Your task to perform on an android device: turn on location history Image 0: 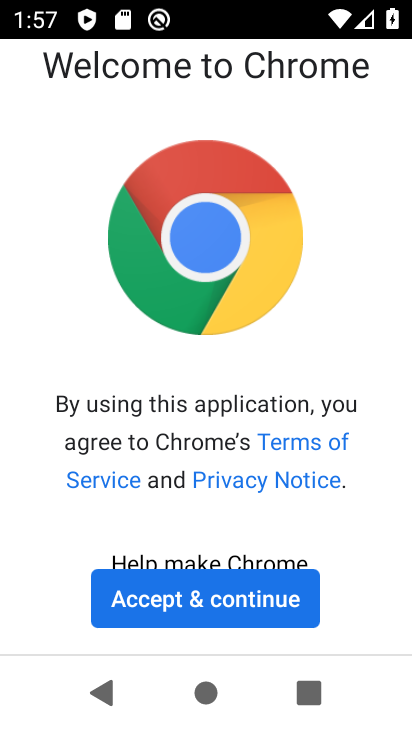
Step 0: press home button
Your task to perform on an android device: turn on location history Image 1: 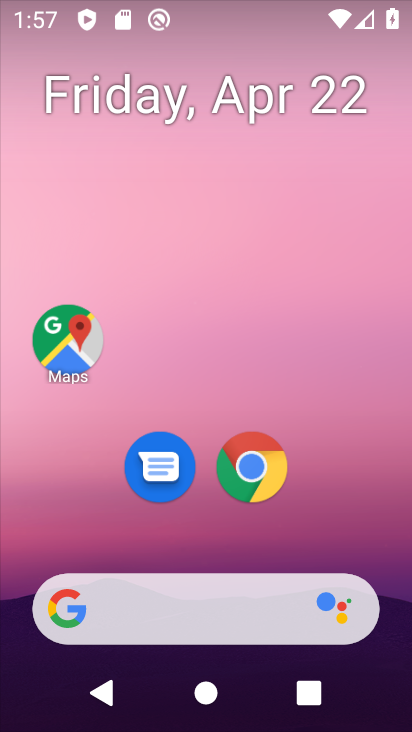
Step 1: drag from (216, 393) to (217, 128)
Your task to perform on an android device: turn on location history Image 2: 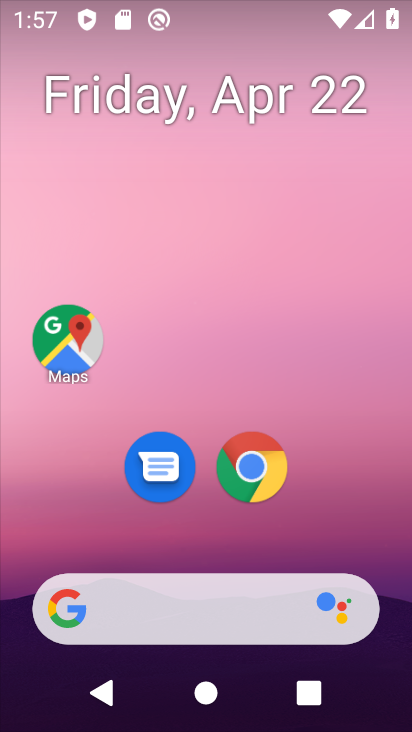
Step 2: drag from (197, 528) to (205, 88)
Your task to perform on an android device: turn on location history Image 3: 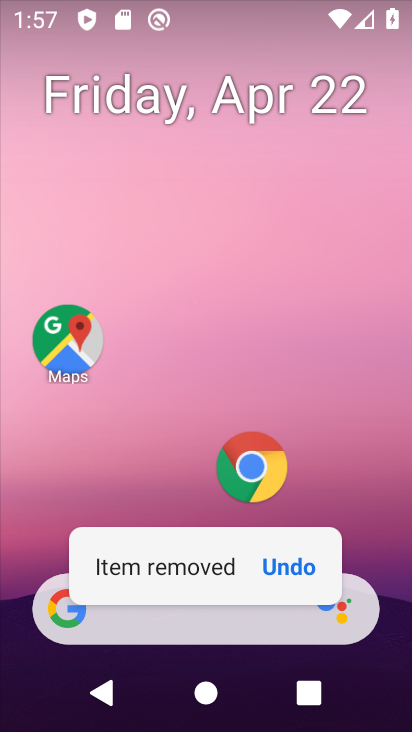
Step 3: drag from (161, 548) to (185, 255)
Your task to perform on an android device: turn on location history Image 4: 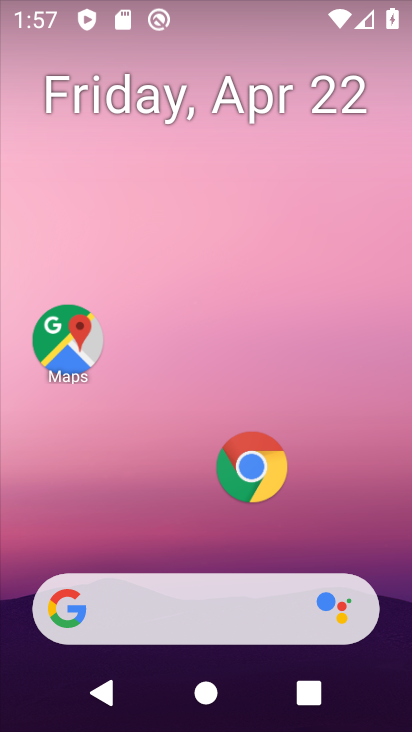
Step 4: click (364, 550)
Your task to perform on an android device: turn on location history Image 5: 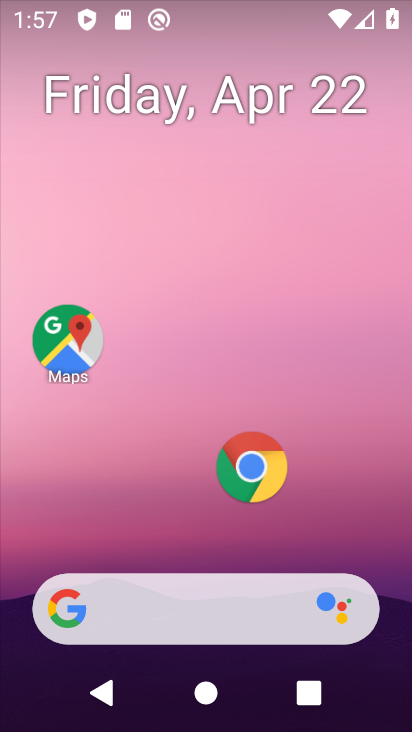
Step 5: drag from (198, 542) to (202, 183)
Your task to perform on an android device: turn on location history Image 6: 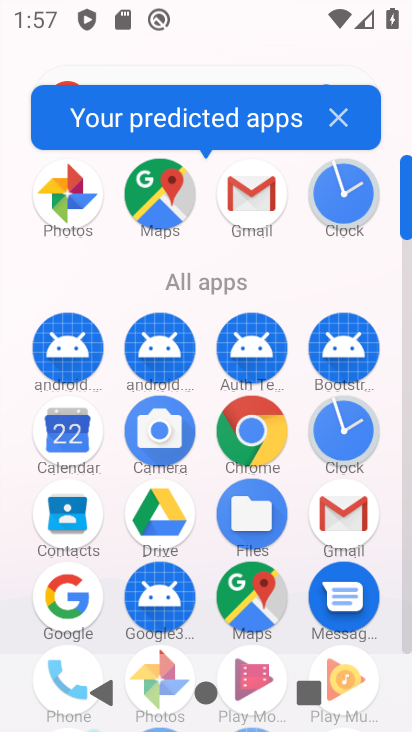
Step 6: drag from (385, 635) to (394, 334)
Your task to perform on an android device: turn on location history Image 7: 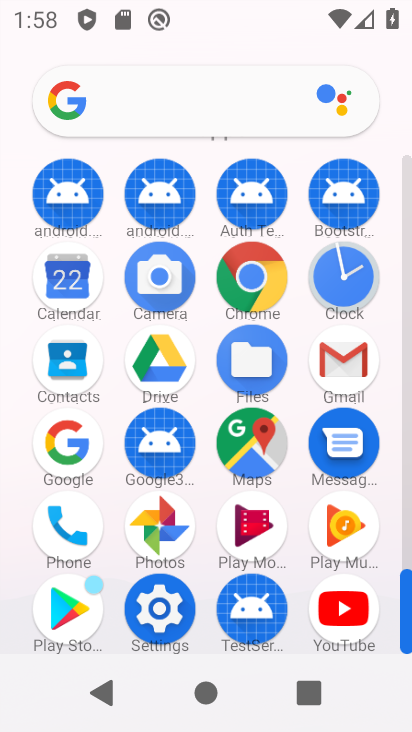
Step 7: click (153, 607)
Your task to perform on an android device: turn on location history Image 8: 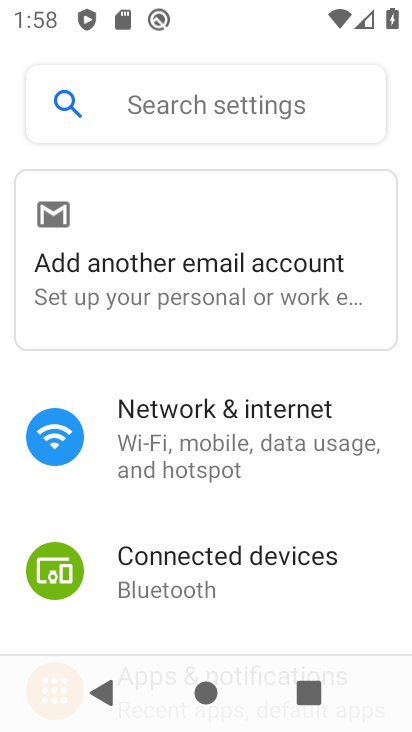
Step 8: drag from (271, 572) to (285, 345)
Your task to perform on an android device: turn on location history Image 9: 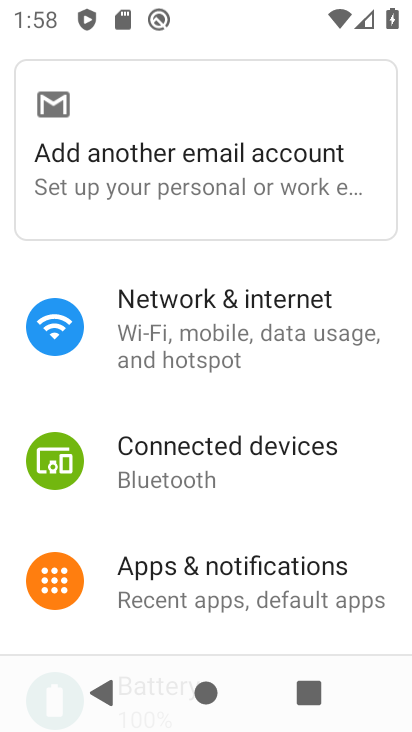
Step 9: drag from (163, 559) to (191, 364)
Your task to perform on an android device: turn on location history Image 10: 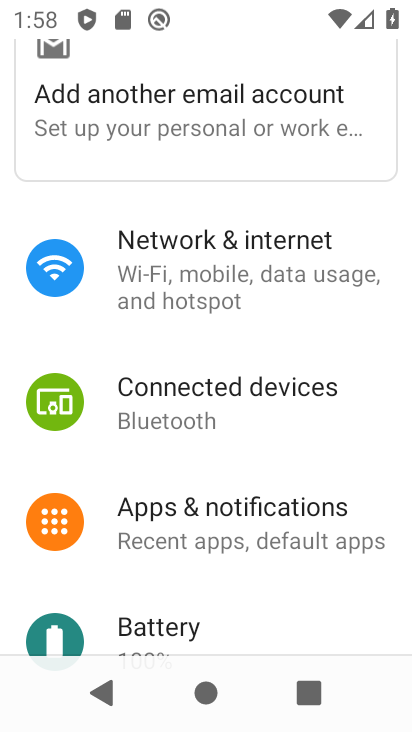
Step 10: drag from (239, 563) to (274, 219)
Your task to perform on an android device: turn on location history Image 11: 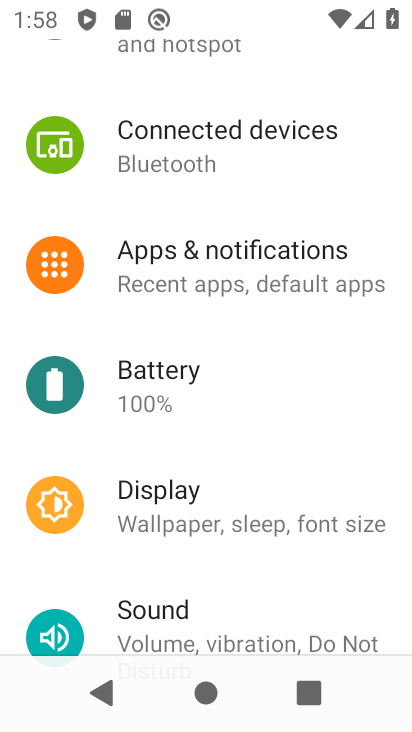
Step 11: drag from (175, 632) to (178, 259)
Your task to perform on an android device: turn on location history Image 12: 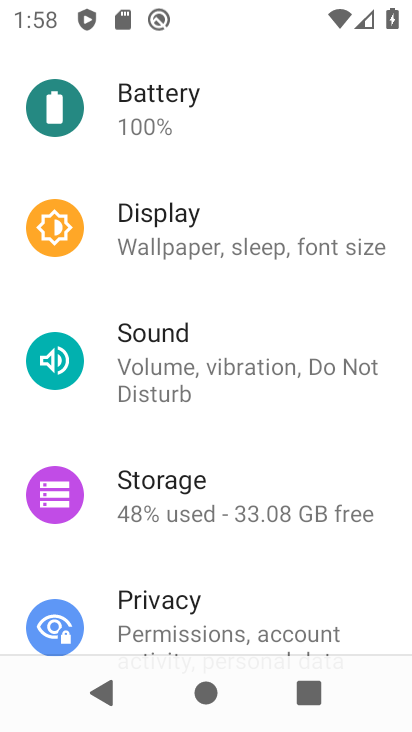
Step 12: drag from (217, 580) to (231, 184)
Your task to perform on an android device: turn on location history Image 13: 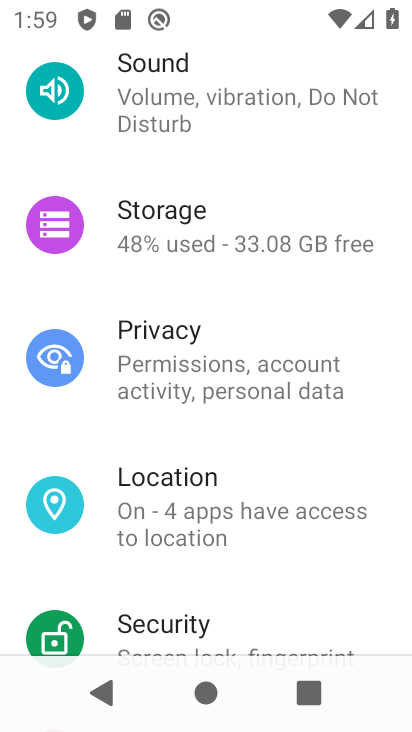
Step 13: click (157, 526)
Your task to perform on an android device: turn on location history Image 14: 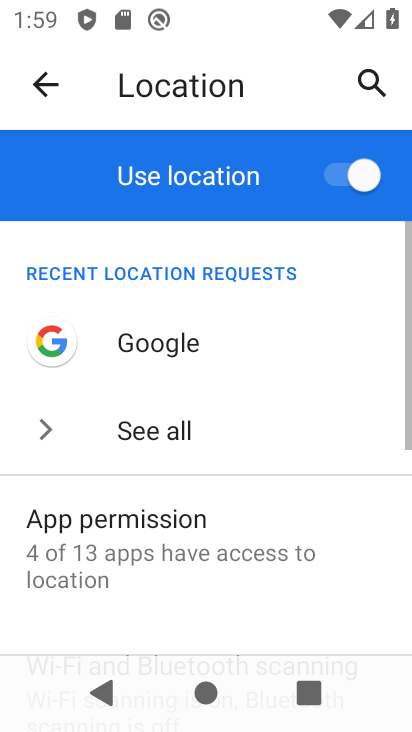
Step 14: task complete